Your task to perform on an android device: toggle translation in the chrome app Image 0: 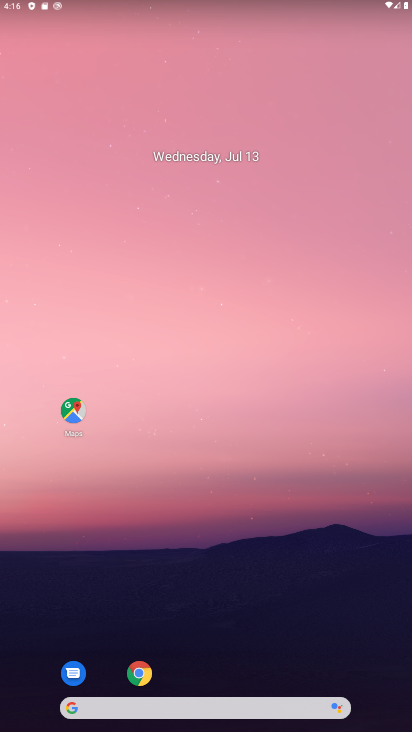
Step 0: drag from (230, 673) to (195, 27)
Your task to perform on an android device: toggle translation in the chrome app Image 1: 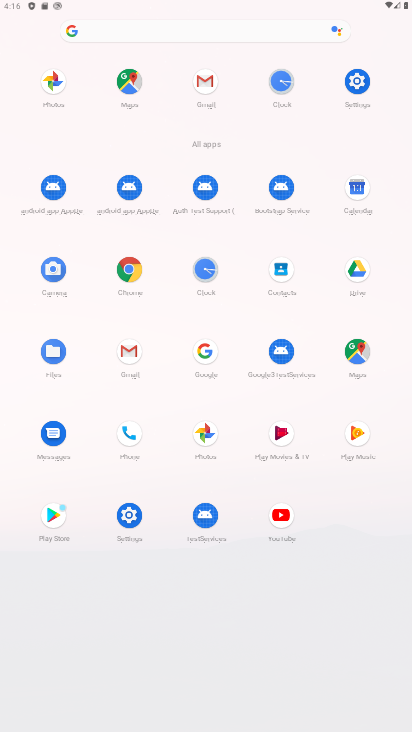
Step 1: click (352, 81)
Your task to perform on an android device: toggle translation in the chrome app Image 2: 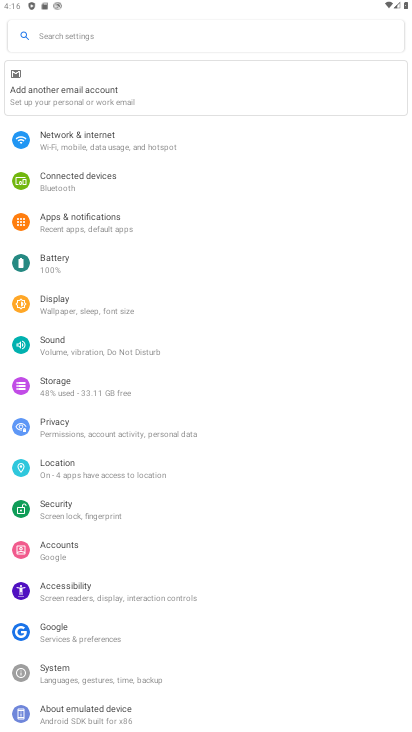
Step 2: click (68, 309)
Your task to perform on an android device: toggle translation in the chrome app Image 3: 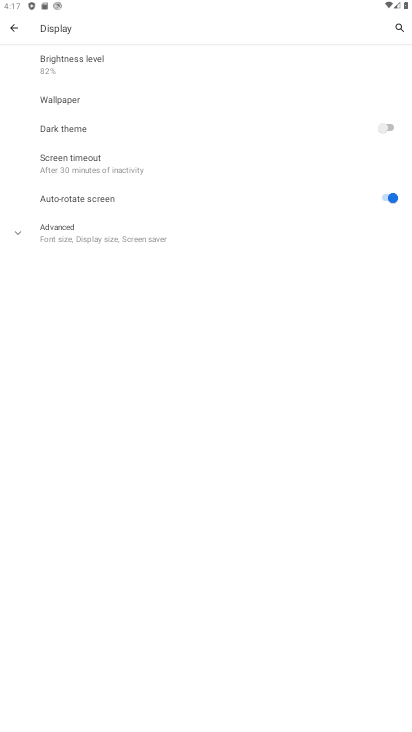
Step 3: click (171, 231)
Your task to perform on an android device: toggle translation in the chrome app Image 4: 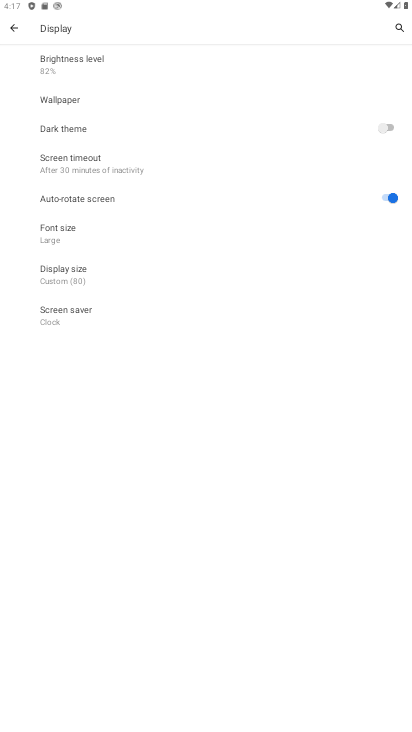
Step 4: click (112, 278)
Your task to perform on an android device: toggle translation in the chrome app Image 5: 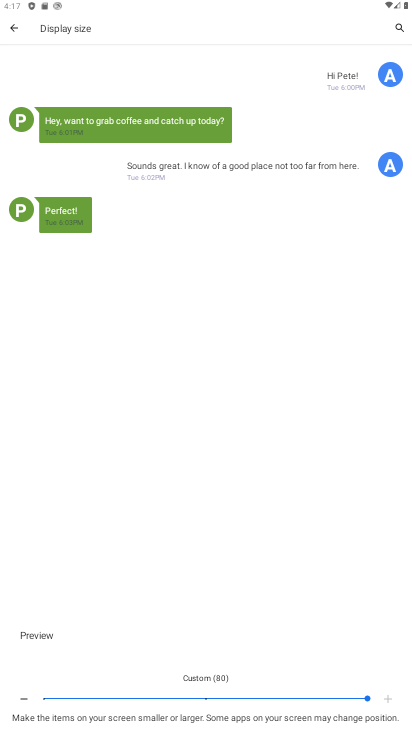
Step 5: click (203, 699)
Your task to perform on an android device: toggle translation in the chrome app Image 6: 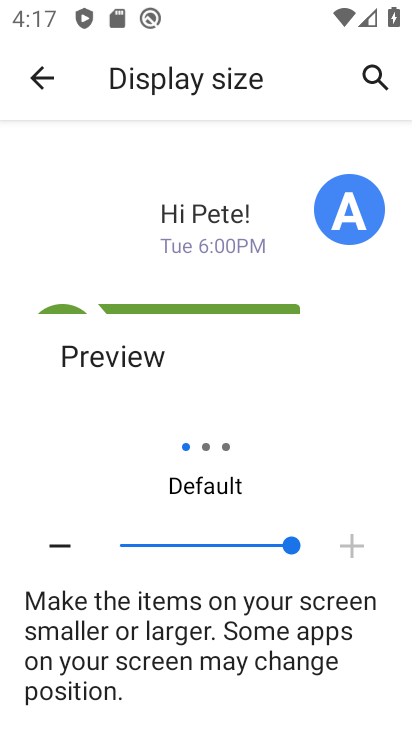
Step 6: press home button
Your task to perform on an android device: toggle translation in the chrome app Image 7: 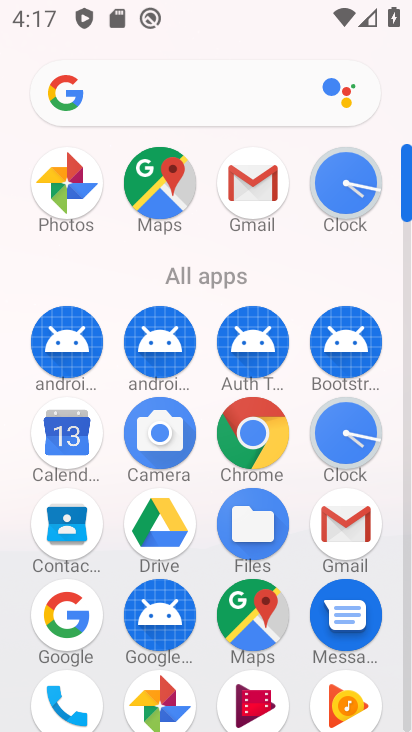
Step 7: click (280, 440)
Your task to perform on an android device: toggle translation in the chrome app Image 8: 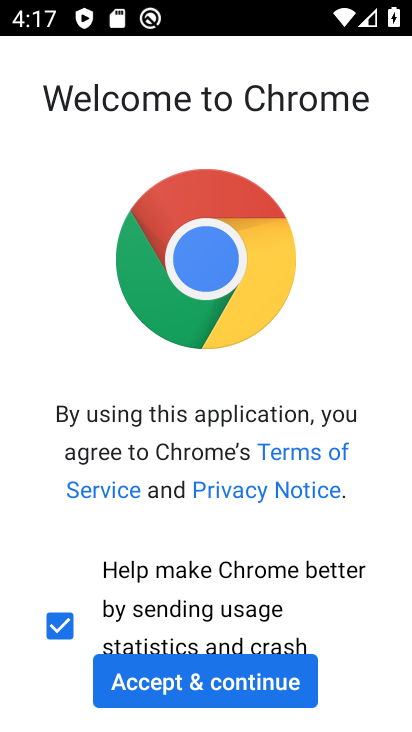
Step 8: click (236, 691)
Your task to perform on an android device: toggle translation in the chrome app Image 9: 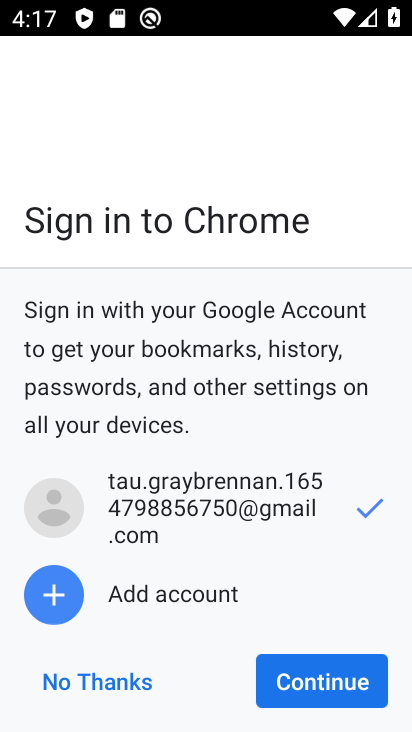
Step 9: click (306, 684)
Your task to perform on an android device: toggle translation in the chrome app Image 10: 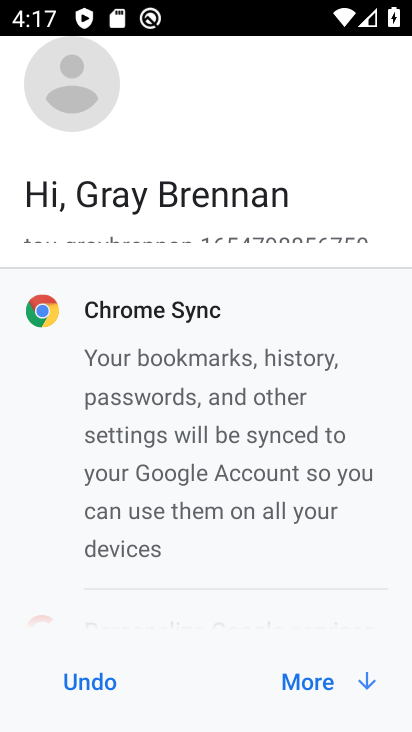
Step 10: click (310, 683)
Your task to perform on an android device: toggle translation in the chrome app Image 11: 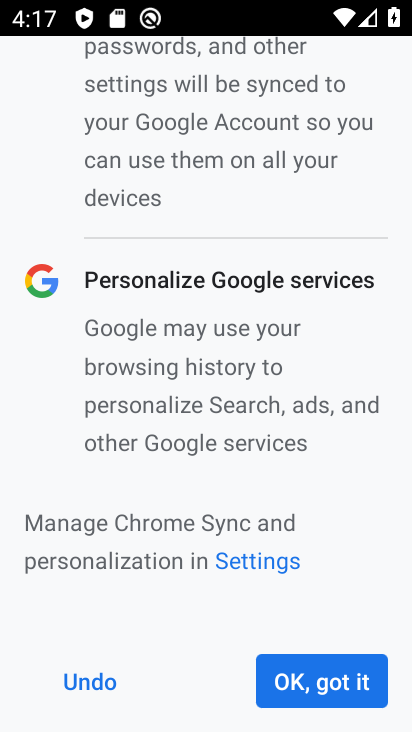
Step 11: click (310, 683)
Your task to perform on an android device: toggle translation in the chrome app Image 12: 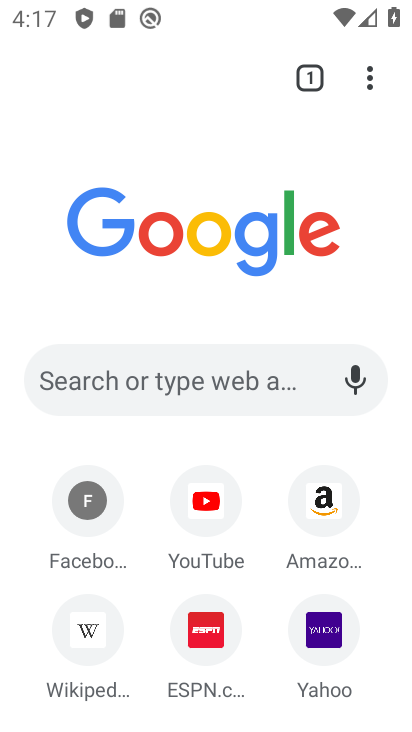
Step 12: click (367, 79)
Your task to perform on an android device: toggle translation in the chrome app Image 13: 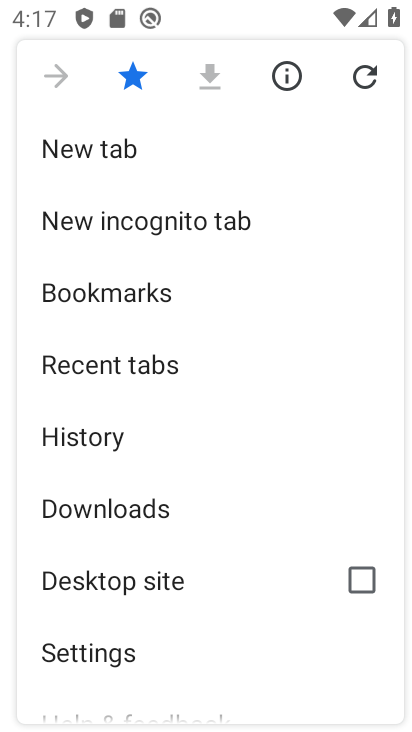
Step 13: click (235, 650)
Your task to perform on an android device: toggle translation in the chrome app Image 14: 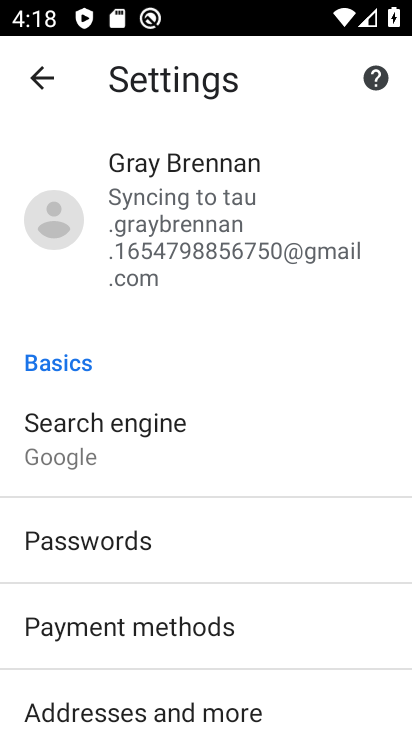
Step 14: drag from (272, 679) to (176, 233)
Your task to perform on an android device: toggle translation in the chrome app Image 15: 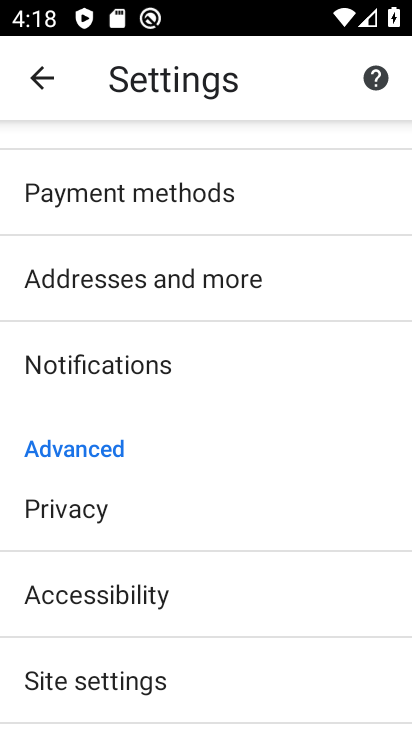
Step 15: drag from (240, 676) to (191, 388)
Your task to perform on an android device: toggle translation in the chrome app Image 16: 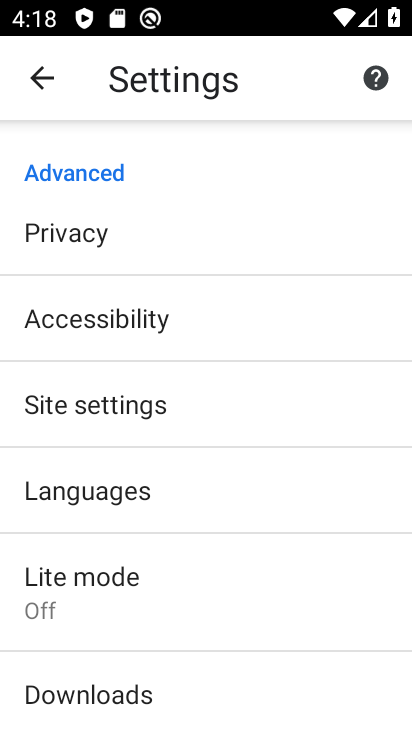
Step 16: click (213, 490)
Your task to perform on an android device: toggle translation in the chrome app Image 17: 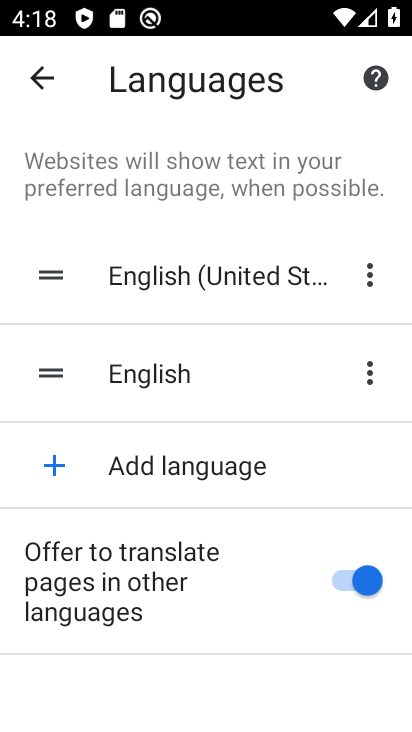
Step 17: click (353, 571)
Your task to perform on an android device: toggle translation in the chrome app Image 18: 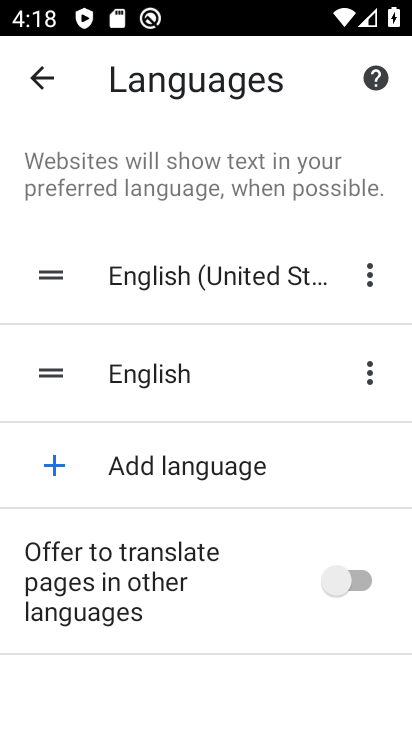
Step 18: task complete